Your task to perform on an android device: Go to internet settings Image 0: 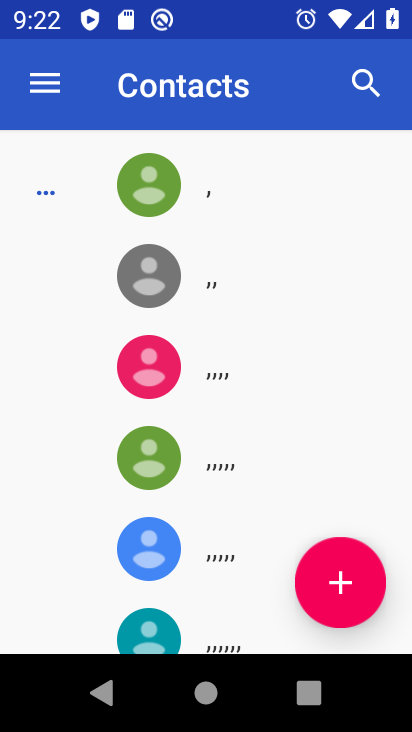
Step 0: press back button
Your task to perform on an android device: Go to internet settings Image 1: 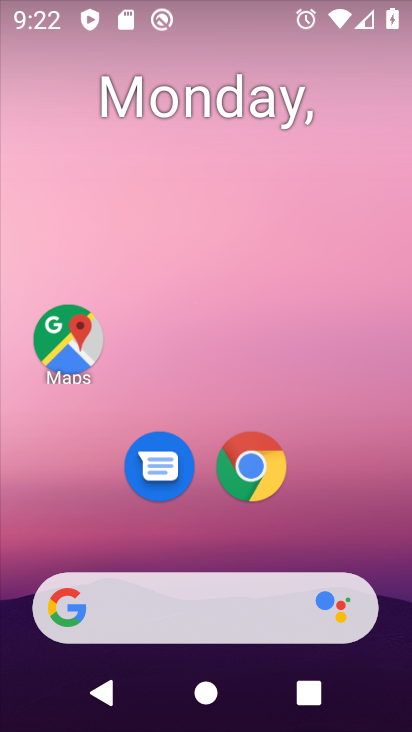
Step 1: drag from (353, 538) to (181, 9)
Your task to perform on an android device: Go to internet settings Image 2: 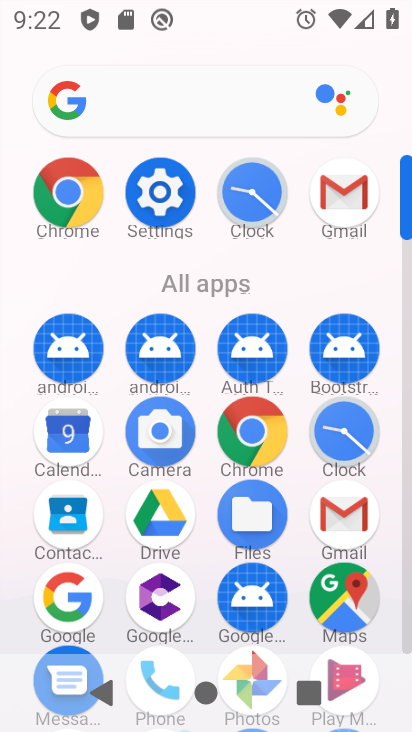
Step 2: click (160, 190)
Your task to perform on an android device: Go to internet settings Image 3: 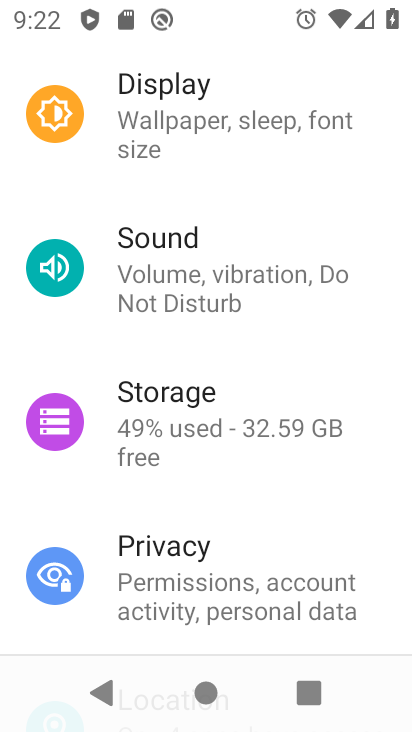
Step 3: drag from (175, 146) to (211, 670)
Your task to perform on an android device: Go to internet settings Image 4: 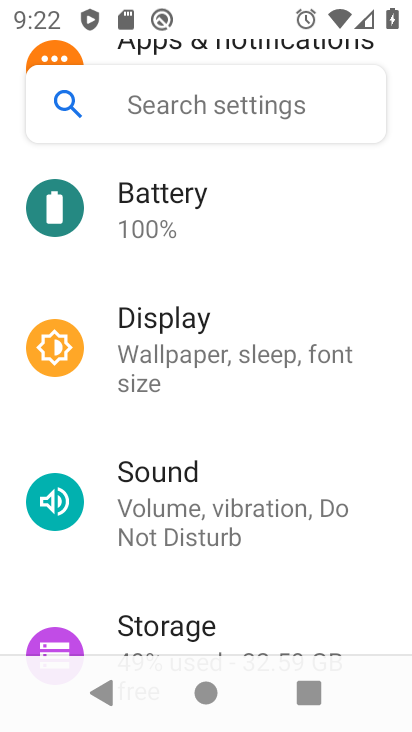
Step 4: drag from (223, 157) to (274, 460)
Your task to perform on an android device: Go to internet settings Image 5: 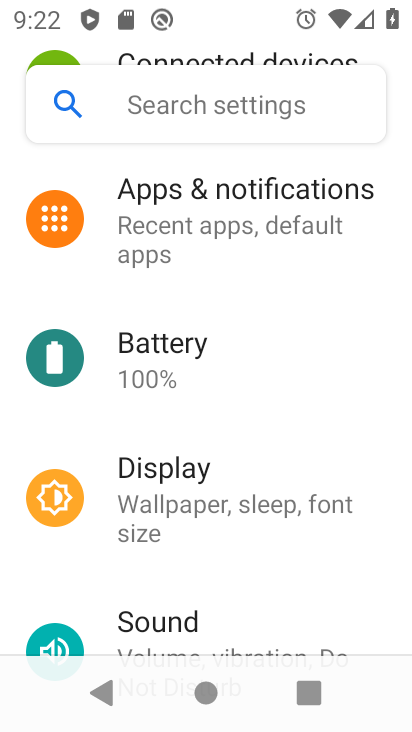
Step 5: drag from (203, 104) to (258, 468)
Your task to perform on an android device: Go to internet settings Image 6: 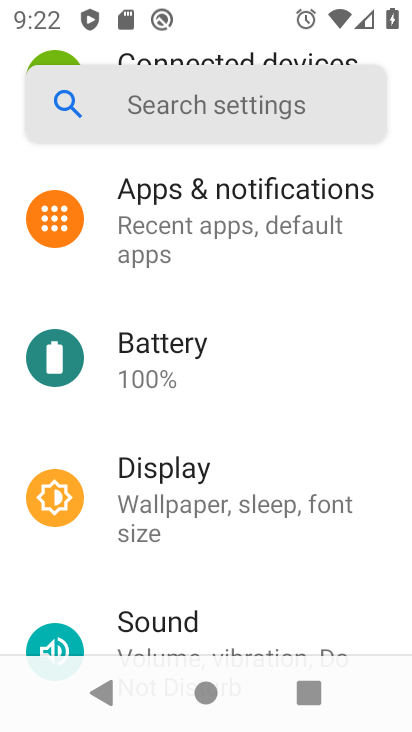
Step 6: drag from (215, 195) to (222, 484)
Your task to perform on an android device: Go to internet settings Image 7: 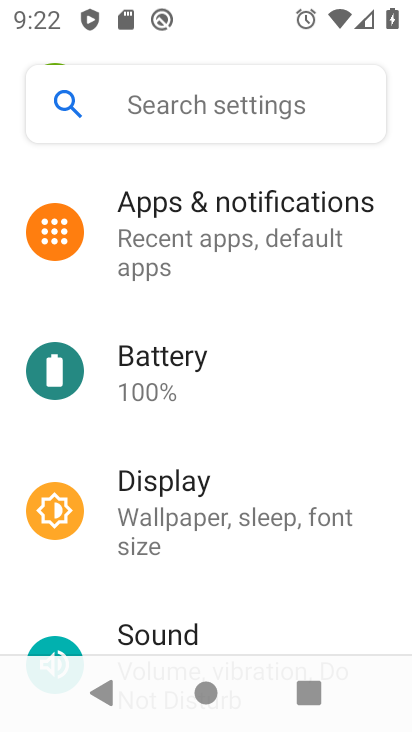
Step 7: drag from (187, 224) to (225, 496)
Your task to perform on an android device: Go to internet settings Image 8: 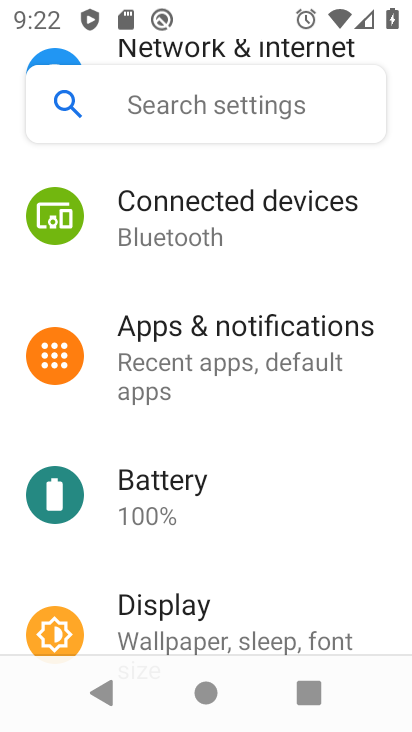
Step 8: drag from (218, 223) to (261, 571)
Your task to perform on an android device: Go to internet settings Image 9: 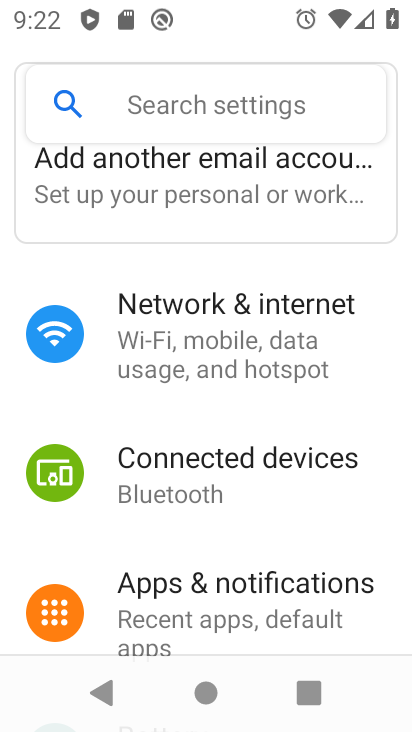
Step 9: drag from (201, 187) to (239, 487)
Your task to perform on an android device: Go to internet settings Image 10: 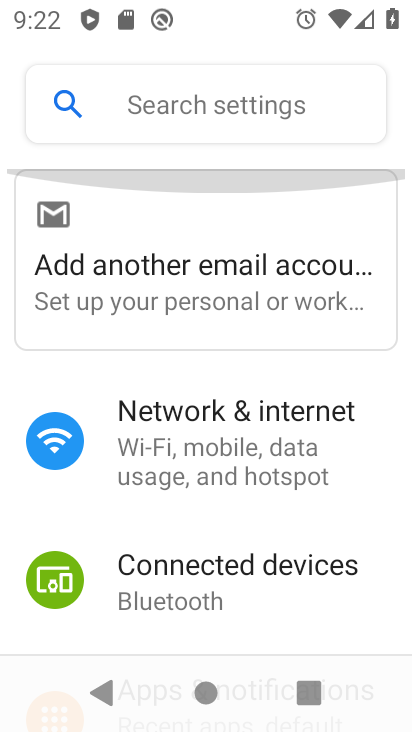
Step 10: drag from (211, 214) to (205, 528)
Your task to perform on an android device: Go to internet settings Image 11: 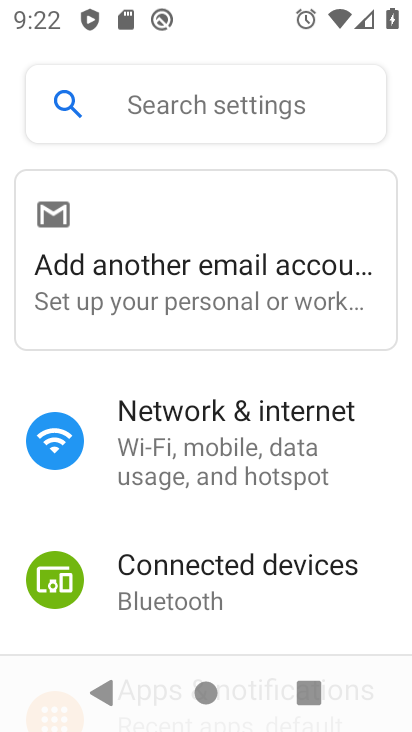
Step 11: click (199, 427)
Your task to perform on an android device: Go to internet settings Image 12: 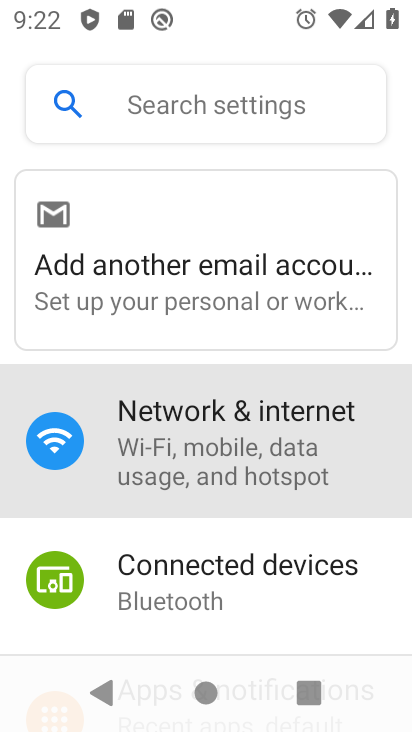
Step 12: click (197, 427)
Your task to perform on an android device: Go to internet settings Image 13: 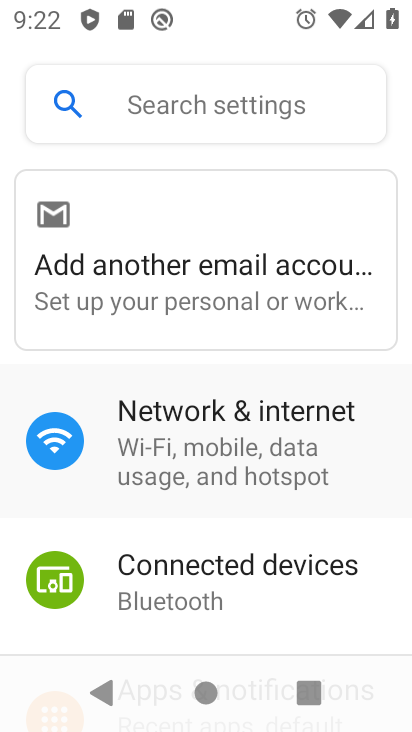
Step 13: click (199, 426)
Your task to perform on an android device: Go to internet settings Image 14: 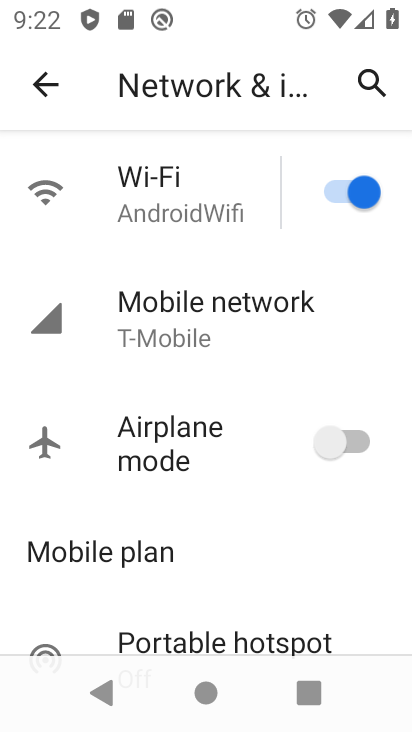
Step 14: task complete